Your task to perform on an android device: Play the last video I watched on Youtube Image 0: 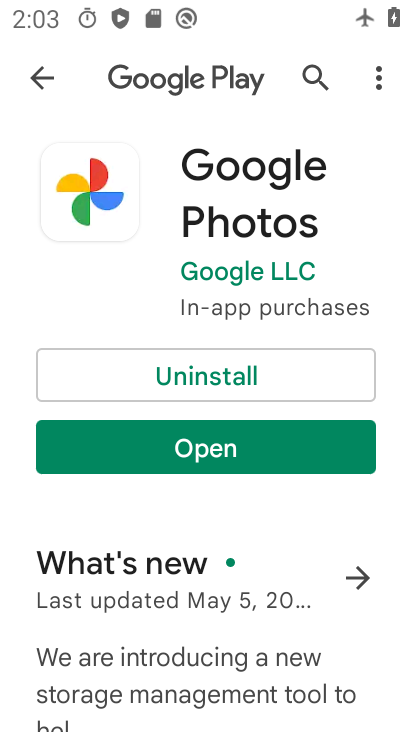
Step 0: press home button
Your task to perform on an android device: Play the last video I watched on Youtube Image 1: 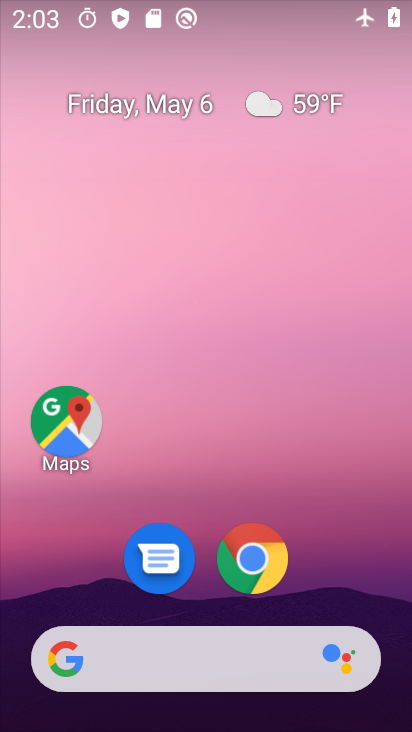
Step 1: drag from (192, 726) to (167, 414)
Your task to perform on an android device: Play the last video I watched on Youtube Image 2: 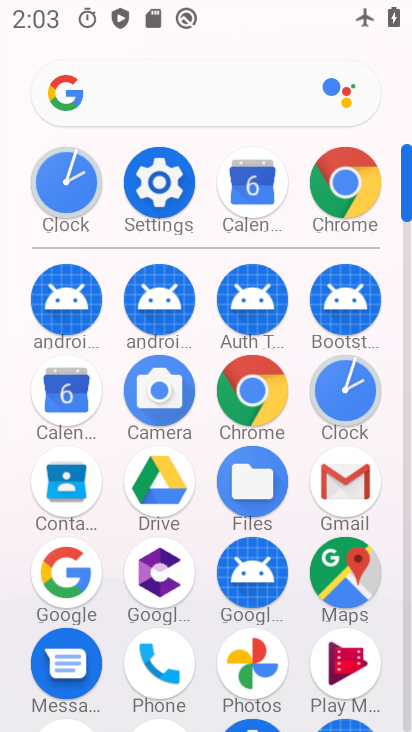
Step 2: drag from (208, 663) to (188, 350)
Your task to perform on an android device: Play the last video I watched on Youtube Image 3: 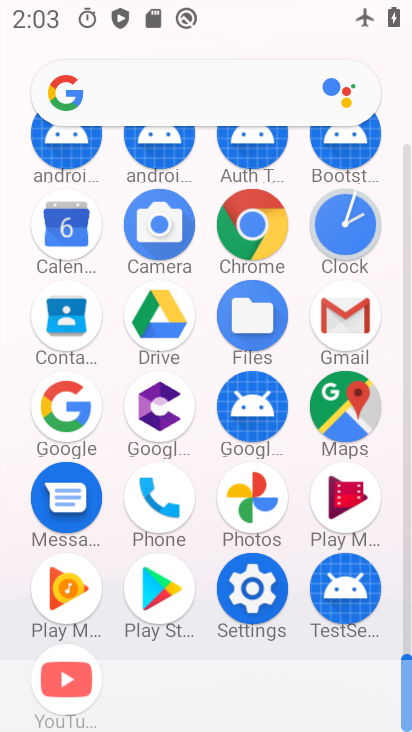
Step 3: click (65, 672)
Your task to perform on an android device: Play the last video I watched on Youtube Image 4: 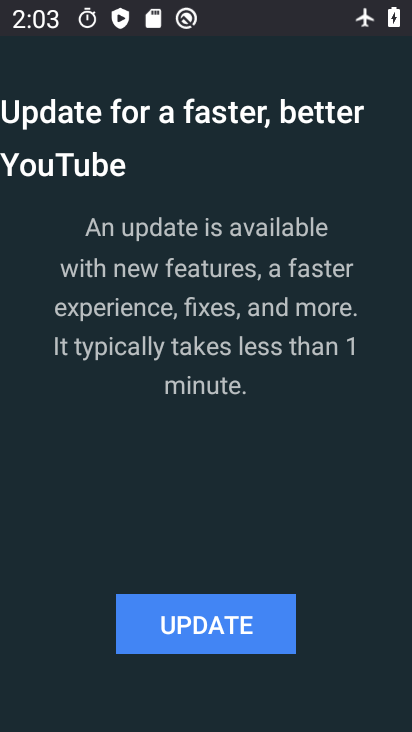
Step 4: task complete